Your task to perform on an android device: Open display settings Image 0: 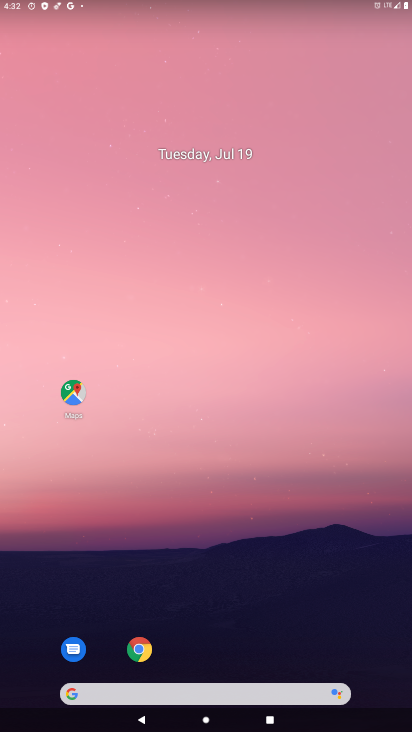
Step 0: drag from (326, 642) to (265, 176)
Your task to perform on an android device: Open display settings Image 1: 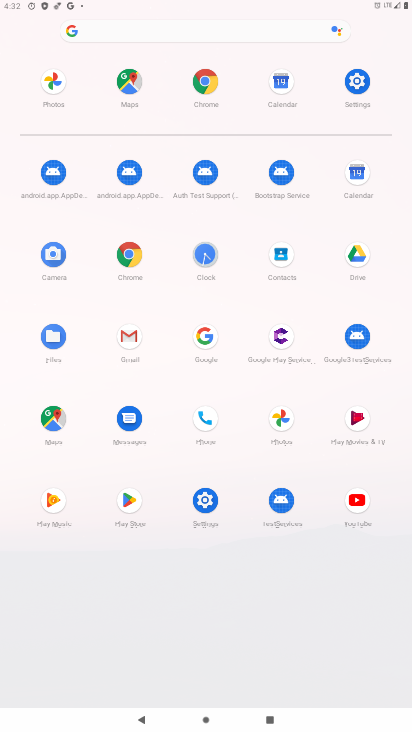
Step 1: click (364, 93)
Your task to perform on an android device: Open display settings Image 2: 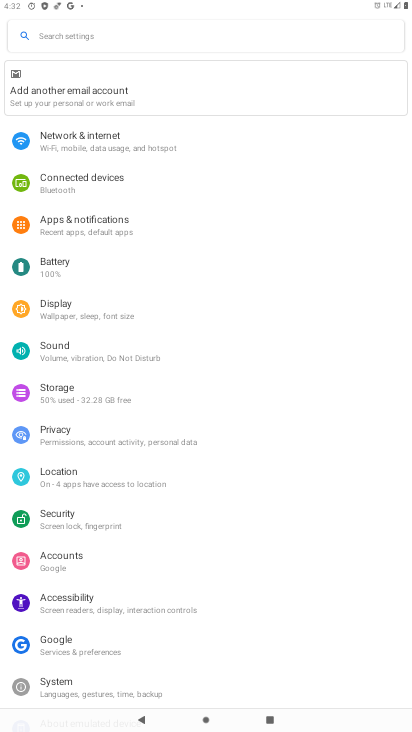
Step 2: click (108, 318)
Your task to perform on an android device: Open display settings Image 3: 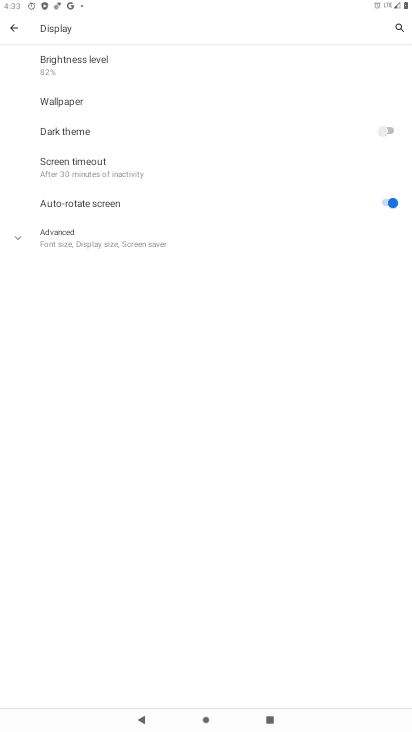
Step 3: task complete